Your task to perform on an android device: change the upload size in google photos Image 0: 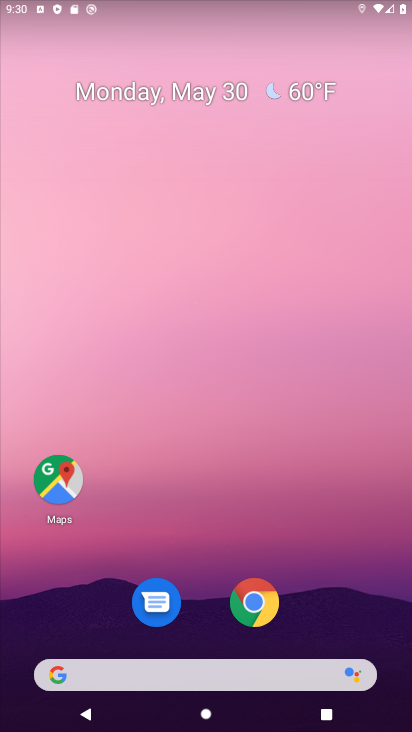
Step 0: drag from (212, 636) to (219, 165)
Your task to perform on an android device: change the upload size in google photos Image 1: 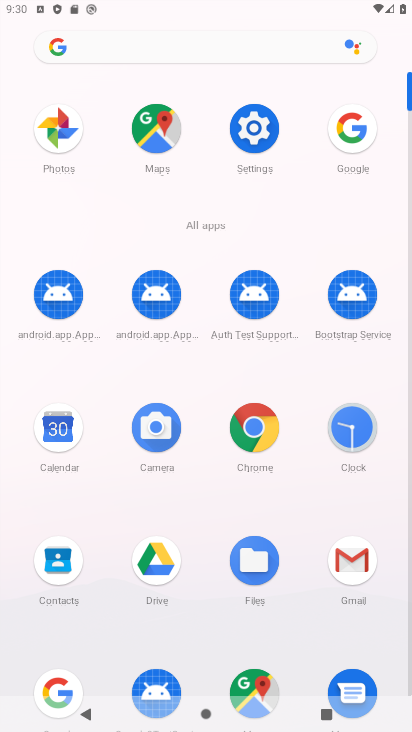
Step 1: click (57, 157)
Your task to perform on an android device: change the upload size in google photos Image 2: 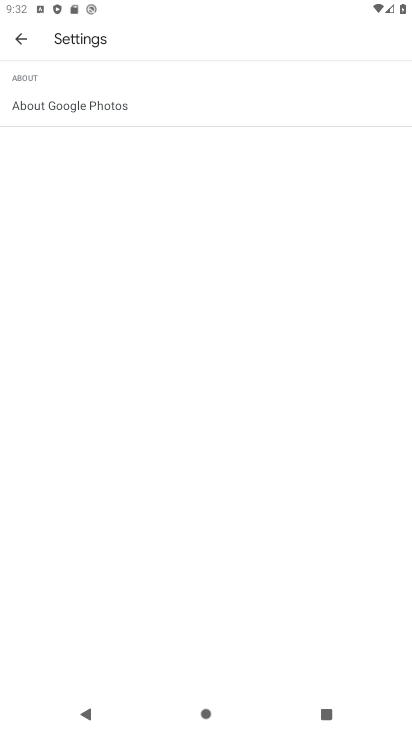
Step 2: press home button
Your task to perform on an android device: change the upload size in google photos Image 3: 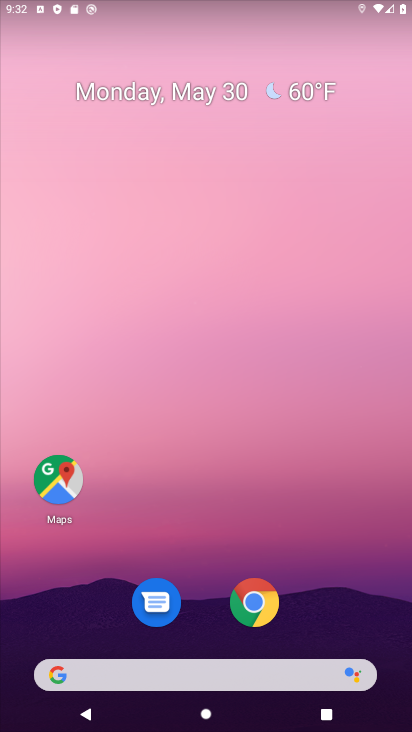
Step 3: drag from (178, 634) to (129, 182)
Your task to perform on an android device: change the upload size in google photos Image 4: 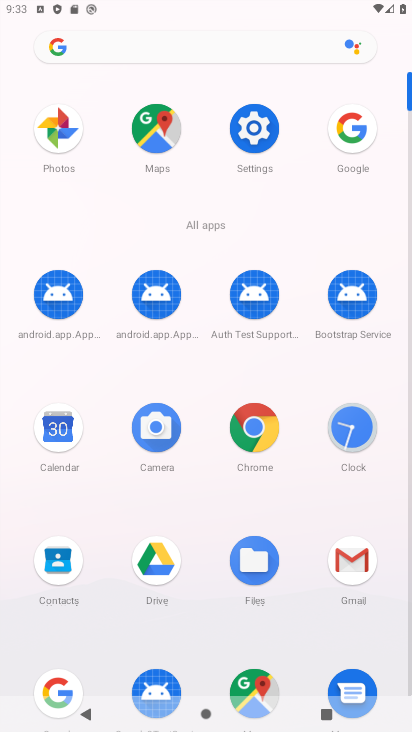
Step 4: drag from (134, 615) to (103, 570)
Your task to perform on an android device: change the upload size in google photos Image 5: 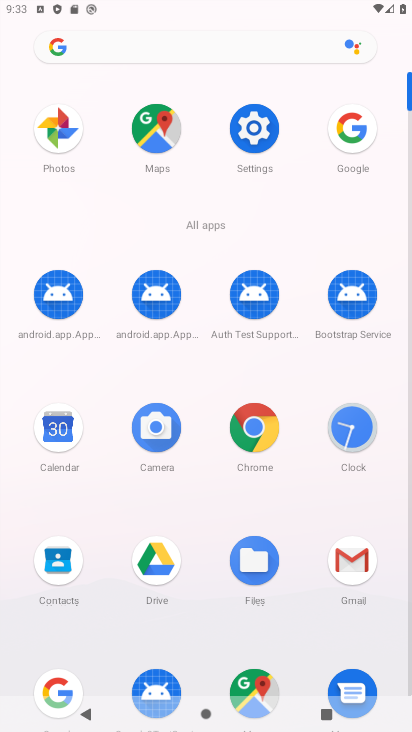
Step 5: click (69, 154)
Your task to perform on an android device: change the upload size in google photos Image 6: 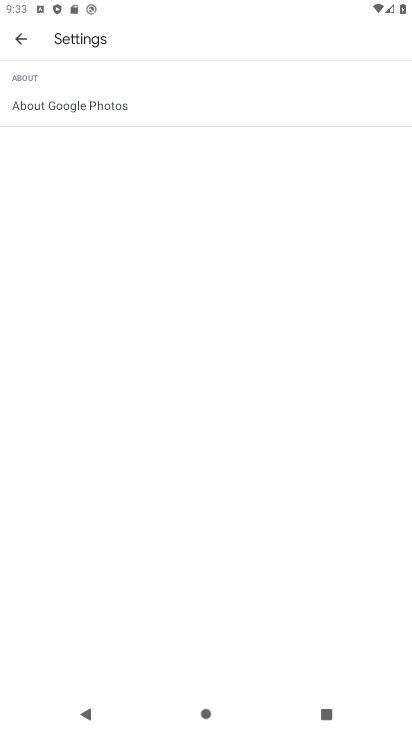
Step 6: click (19, 41)
Your task to perform on an android device: change the upload size in google photos Image 7: 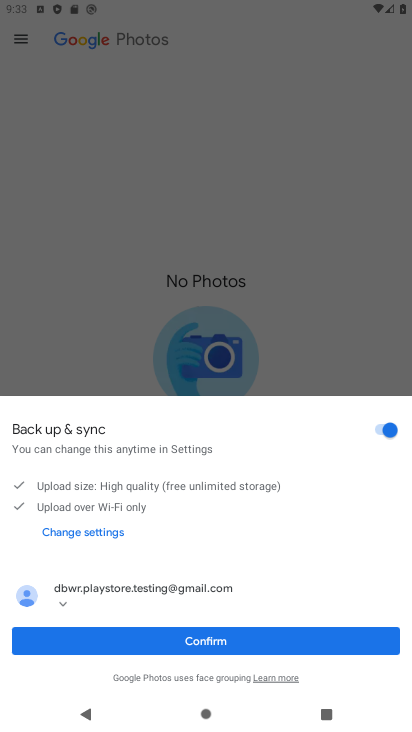
Step 7: click (146, 633)
Your task to perform on an android device: change the upload size in google photos Image 8: 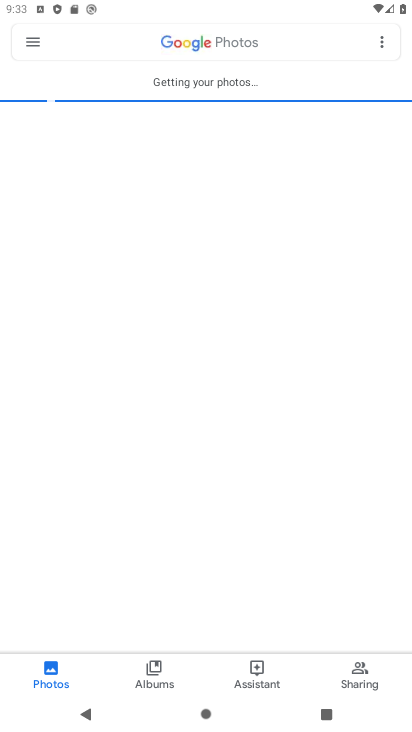
Step 8: click (26, 45)
Your task to perform on an android device: change the upload size in google photos Image 9: 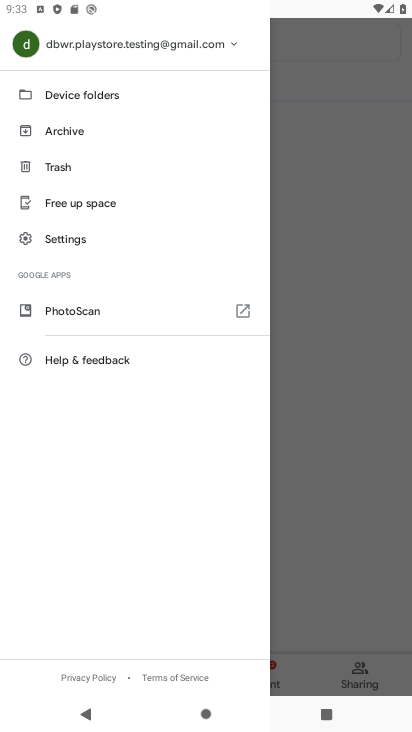
Step 9: click (73, 242)
Your task to perform on an android device: change the upload size in google photos Image 10: 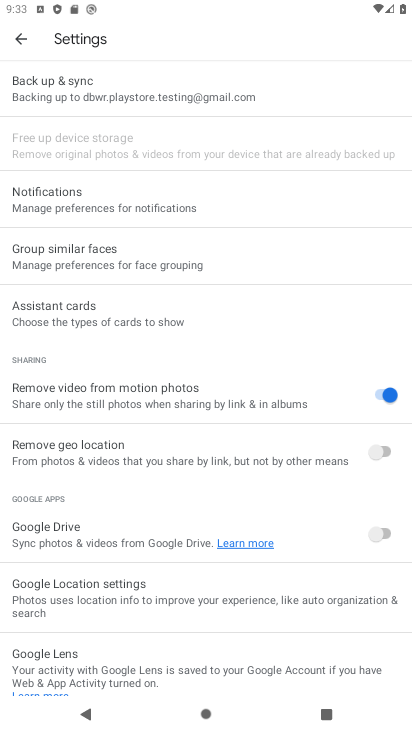
Step 10: click (88, 105)
Your task to perform on an android device: change the upload size in google photos Image 11: 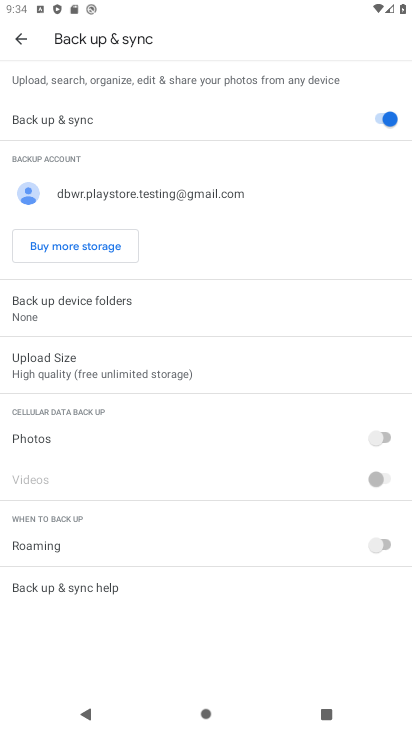
Step 11: click (155, 351)
Your task to perform on an android device: change the upload size in google photos Image 12: 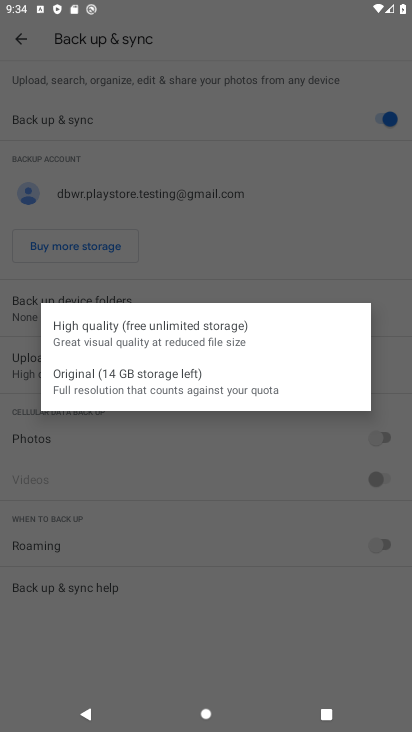
Step 12: click (165, 379)
Your task to perform on an android device: change the upload size in google photos Image 13: 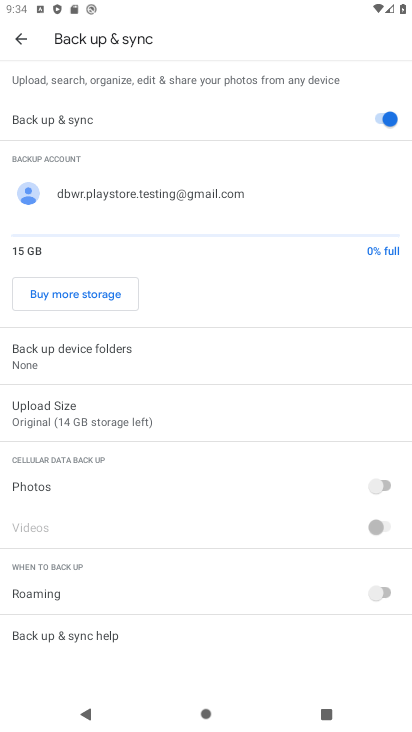
Step 13: task complete